Your task to perform on an android device: see tabs open on other devices in the chrome app Image 0: 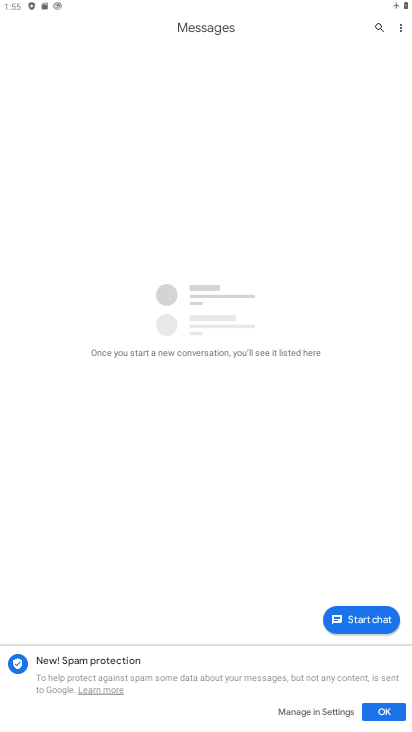
Step 0: press home button
Your task to perform on an android device: see tabs open on other devices in the chrome app Image 1: 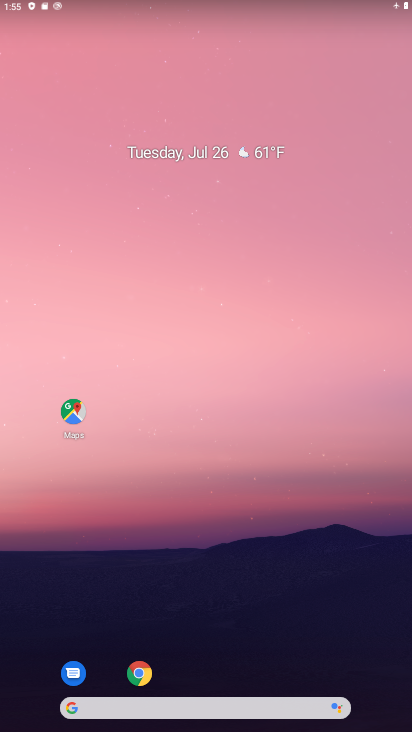
Step 1: drag from (204, 631) to (290, 80)
Your task to perform on an android device: see tabs open on other devices in the chrome app Image 2: 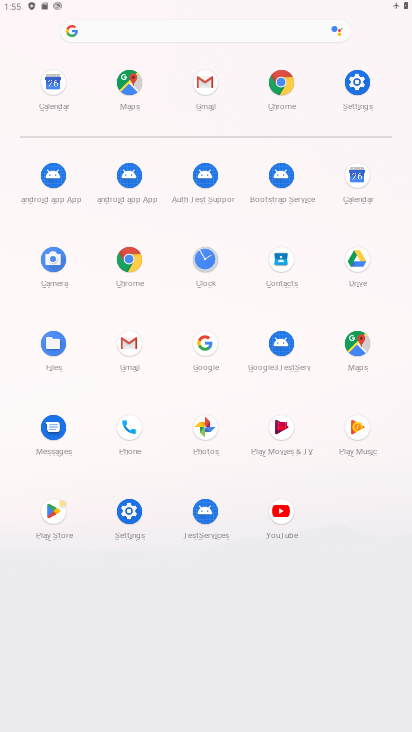
Step 2: click (129, 252)
Your task to perform on an android device: see tabs open on other devices in the chrome app Image 3: 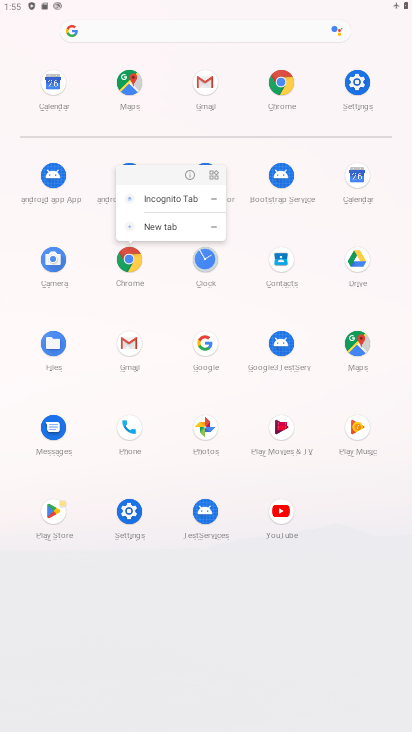
Step 3: click (194, 174)
Your task to perform on an android device: see tabs open on other devices in the chrome app Image 4: 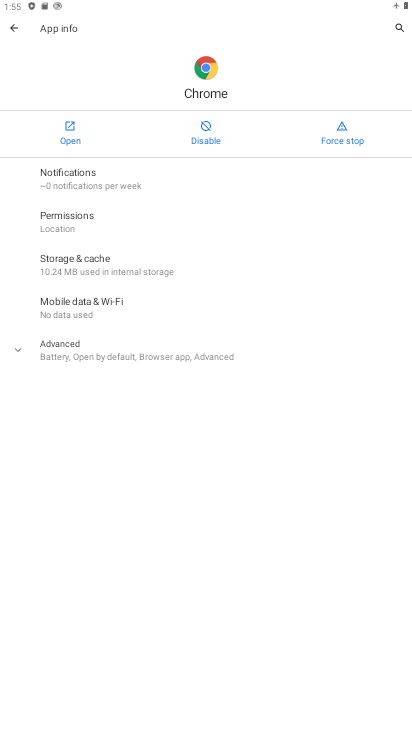
Step 4: click (69, 122)
Your task to perform on an android device: see tabs open on other devices in the chrome app Image 5: 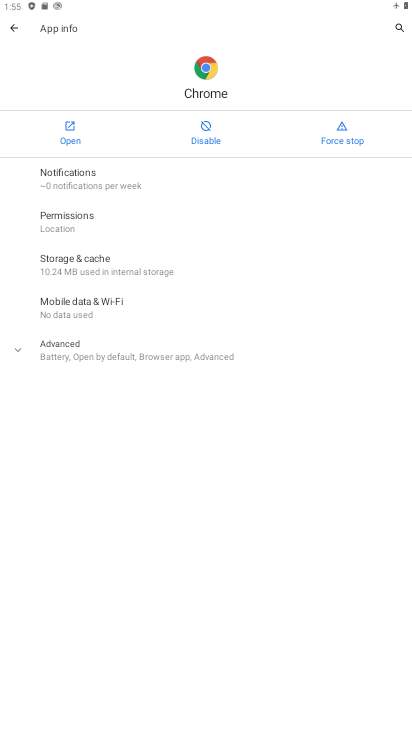
Step 5: click (69, 122)
Your task to perform on an android device: see tabs open on other devices in the chrome app Image 6: 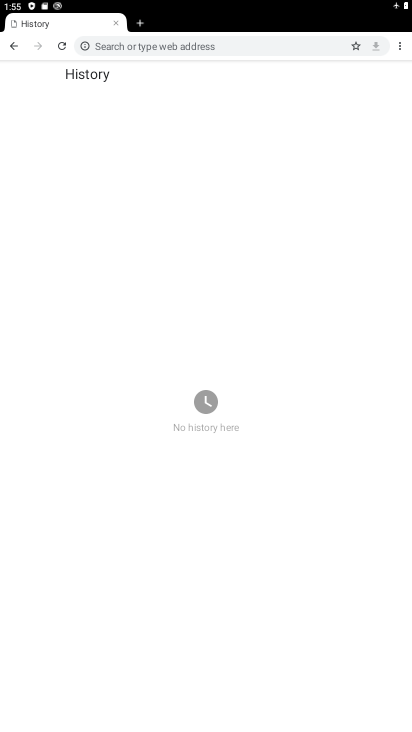
Step 6: task complete